Your task to perform on an android device: Open the calendar app, open the side menu, and click the "Day" option Image 0: 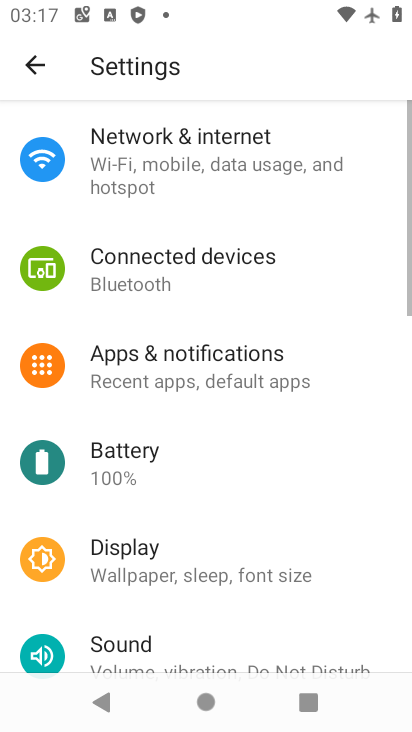
Step 0: press home button
Your task to perform on an android device: Open the calendar app, open the side menu, and click the "Day" option Image 1: 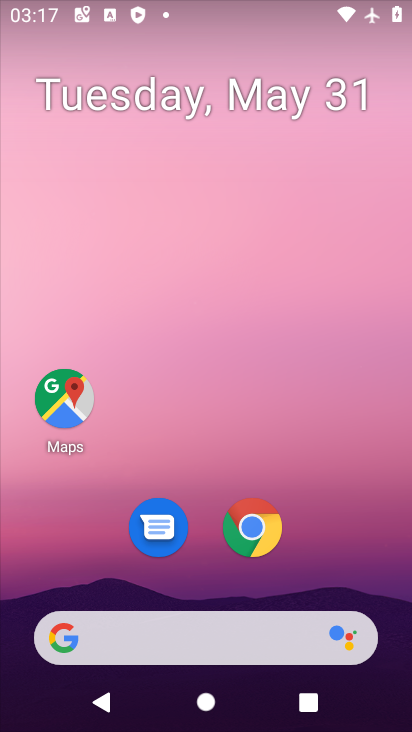
Step 1: drag from (398, 641) to (328, 121)
Your task to perform on an android device: Open the calendar app, open the side menu, and click the "Day" option Image 2: 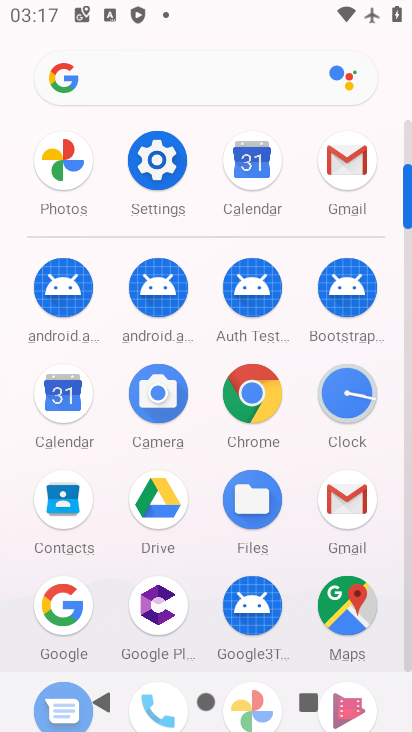
Step 2: click (62, 396)
Your task to perform on an android device: Open the calendar app, open the side menu, and click the "Day" option Image 3: 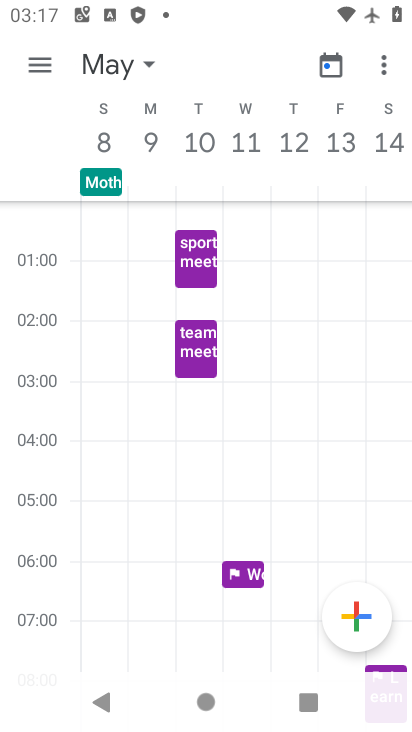
Step 3: click (40, 64)
Your task to perform on an android device: Open the calendar app, open the side menu, and click the "Day" option Image 4: 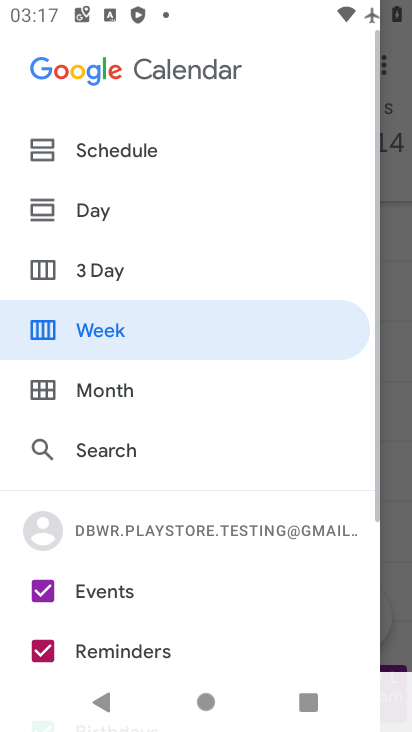
Step 4: click (102, 218)
Your task to perform on an android device: Open the calendar app, open the side menu, and click the "Day" option Image 5: 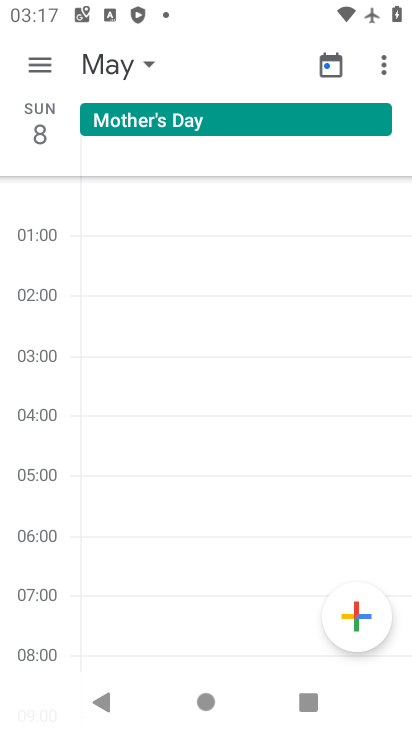
Step 5: task complete